Your task to perform on an android device: toggle sleep mode Image 0: 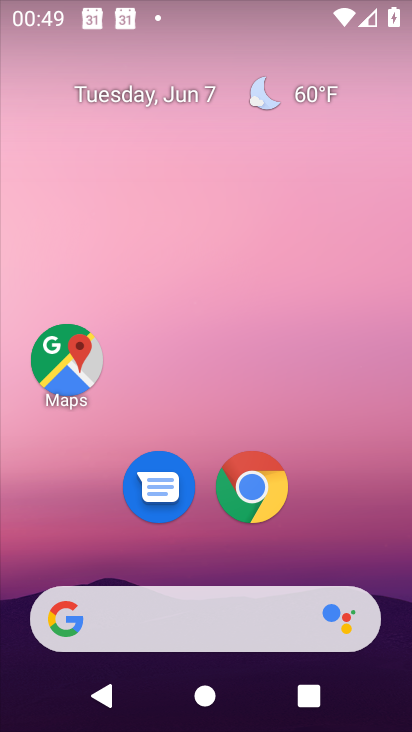
Step 0: drag from (398, 543) to (273, 171)
Your task to perform on an android device: toggle sleep mode Image 1: 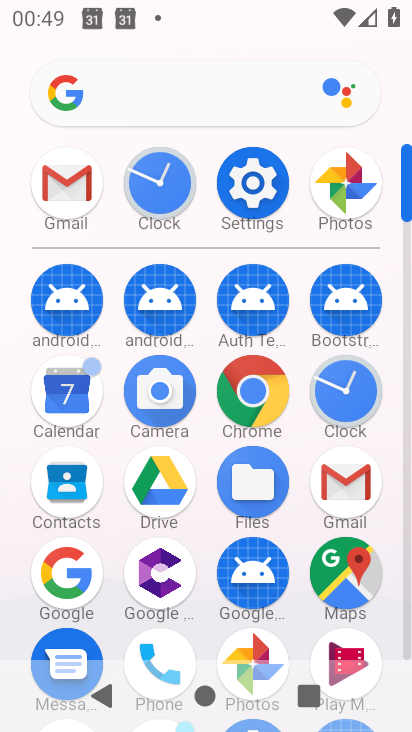
Step 1: click (238, 189)
Your task to perform on an android device: toggle sleep mode Image 2: 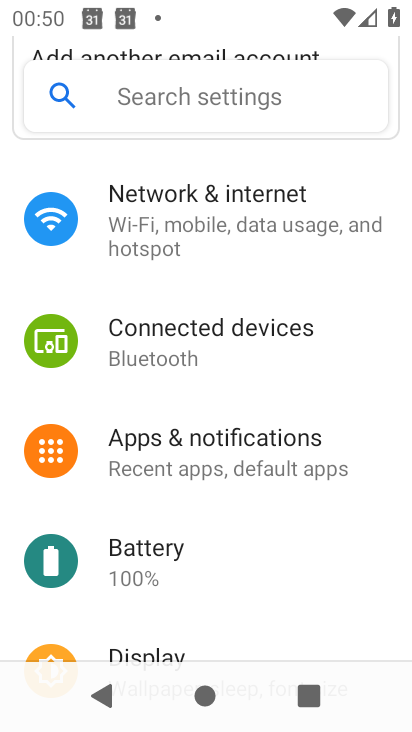
Step 2: drag from (281, 589) to (245, 345)
Your task to perform on an android device: toggle sleep mode Image 3: 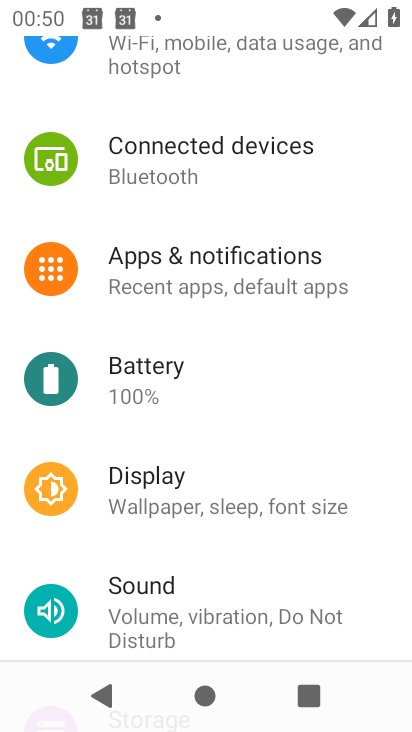
Step 3: click (260, 479)
Your task to perform on an android device: toggle sleep mode Image 4: 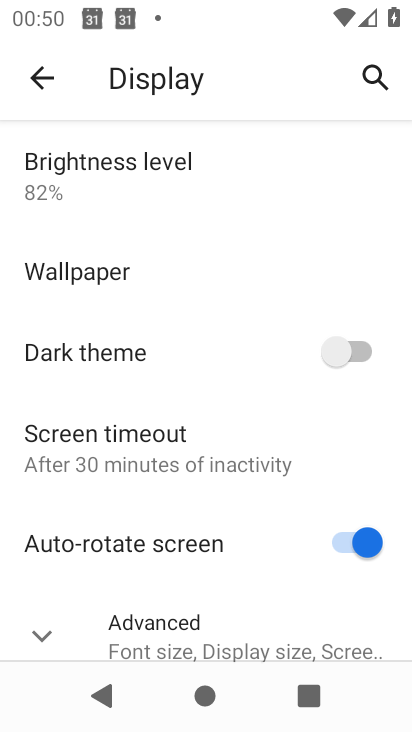
Step 4: drag from (252, 593) to (175, 240)
Your task to perform on an android device: toggle sleep mode Image 5: 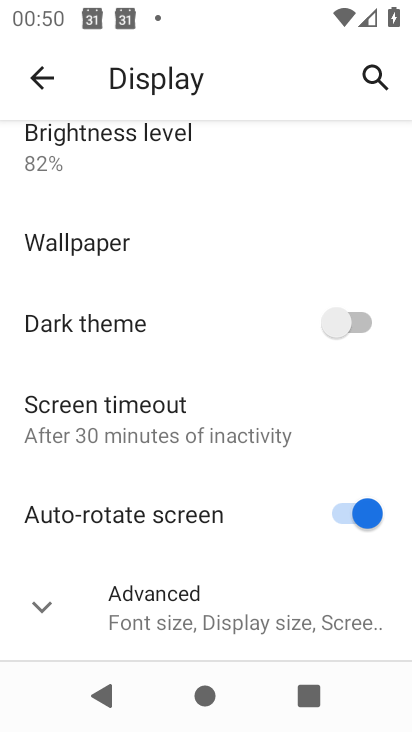
Step 5: click (235, 600)
Your task to perform on an android device: toggle sleep mode Image 6: 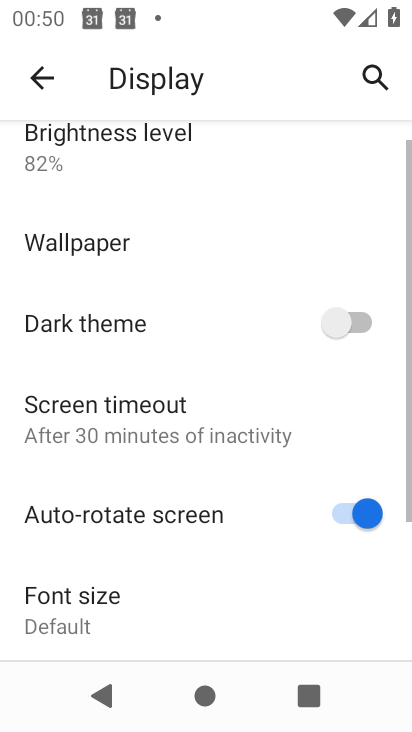
Step 6: task complete